Your task to perform on an android device: Open ESPN.com Image 0: 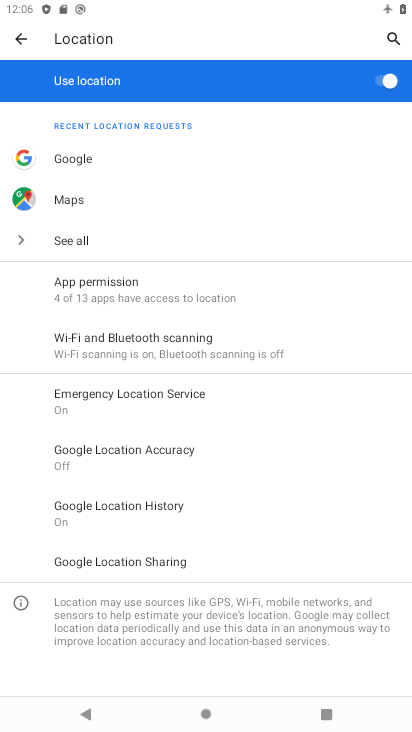
Step 0: press home button
Your task to perform on an android device: Open ESPN.com Image 1: 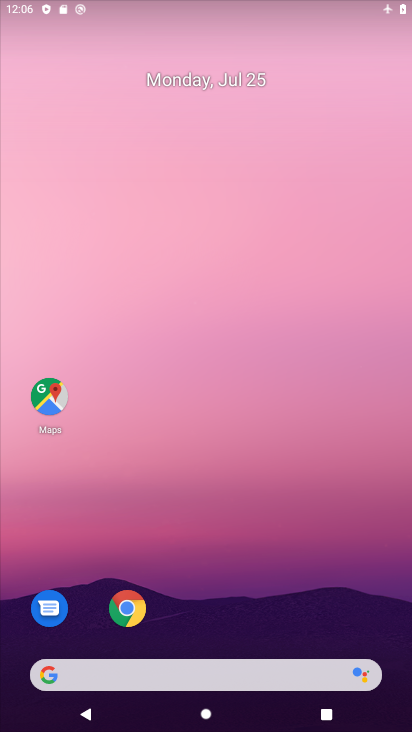
Step 1: drag from (278, 570) to (254, 45)
Your task to perform on an android device: Open ESPN.com Image 2: 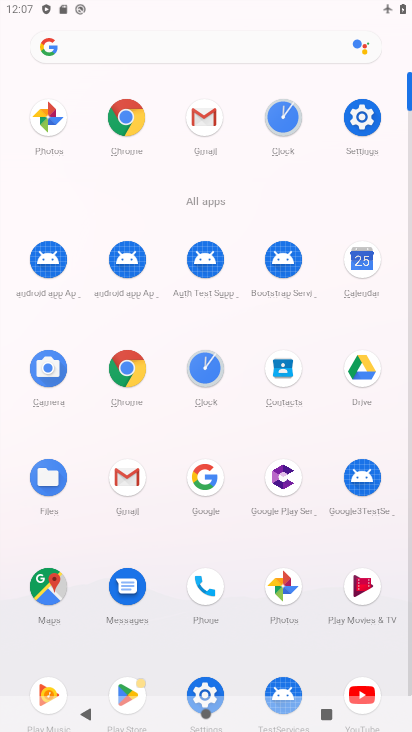
Step 2: click (132, 379)
Your task to perform on an android device: Open ESPN.com Image 3: 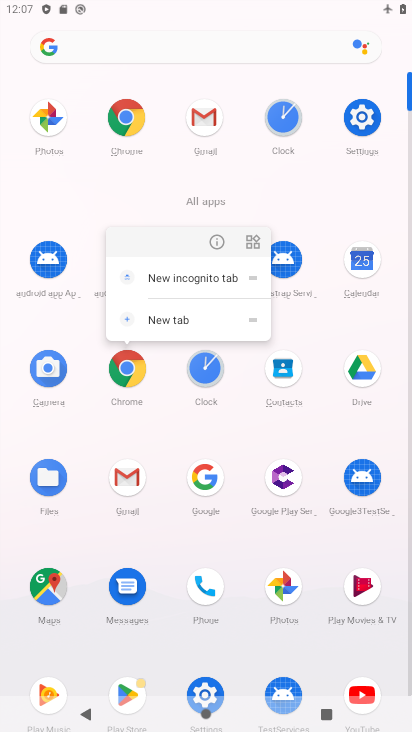
Step 3: click (118, 375)
Your task to perform on an android device: Open ESPN.com Image 4: 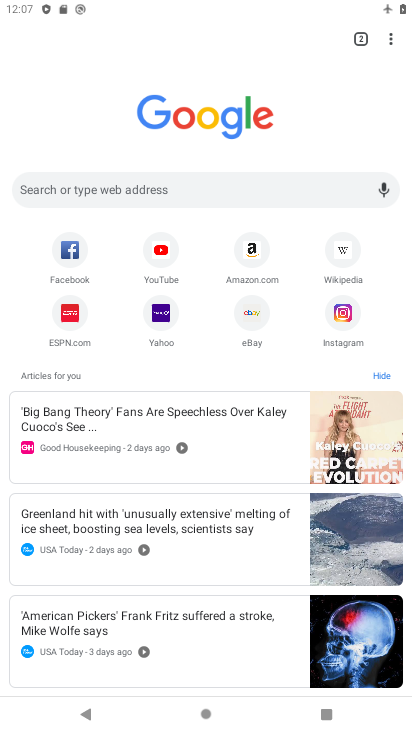
Step 4: click (56, 330)
Your task to perform on an android device: Open ESPN.com Image 5: 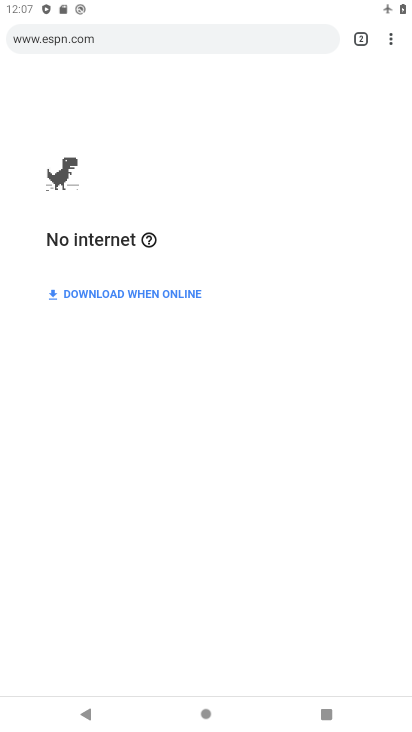
Step 5: task complete